Your task to perform on an android device: Open Android settings Image 0: 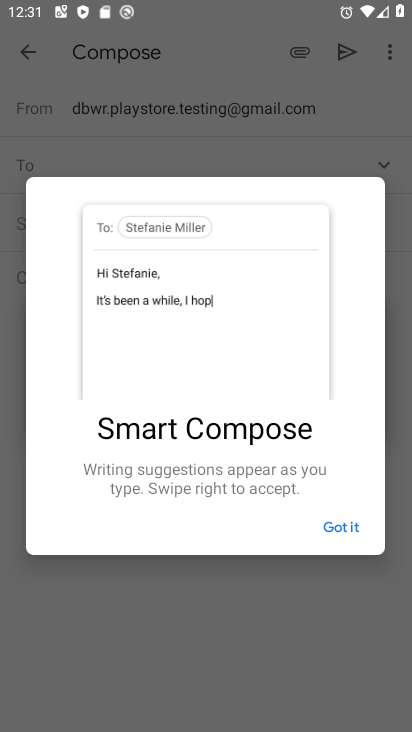
Step 0: press home button
Your task to perform on an android device: Open Android settings Image 1: 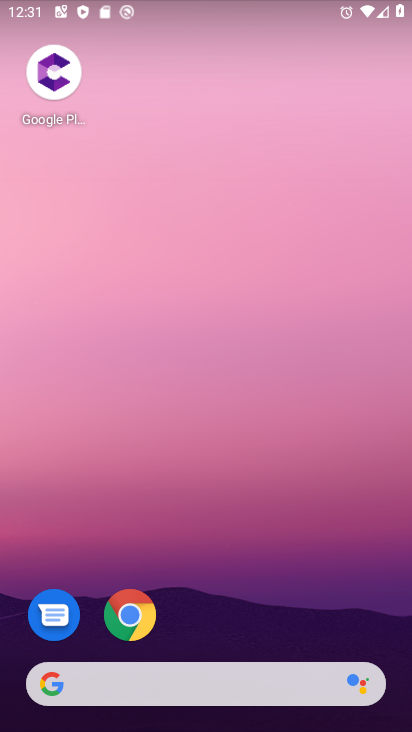
Step 1: drag from (268, 570) to (240, 53)
Your task to perform on an android device: Open Android settings Image 2: 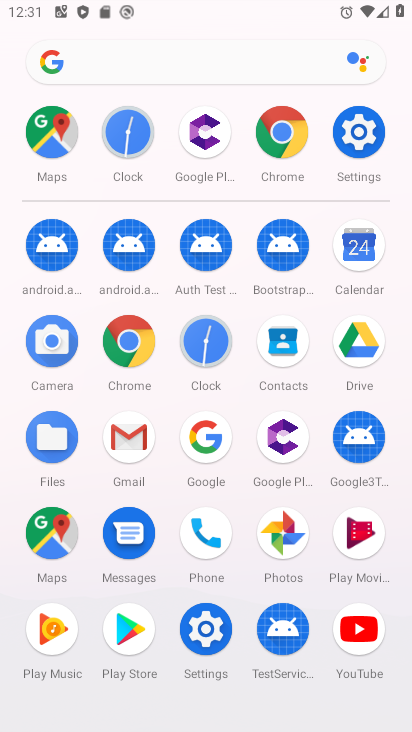
Step 2: click (203, 618)
Your task to perform on an android device: Open Android settings Image 3: 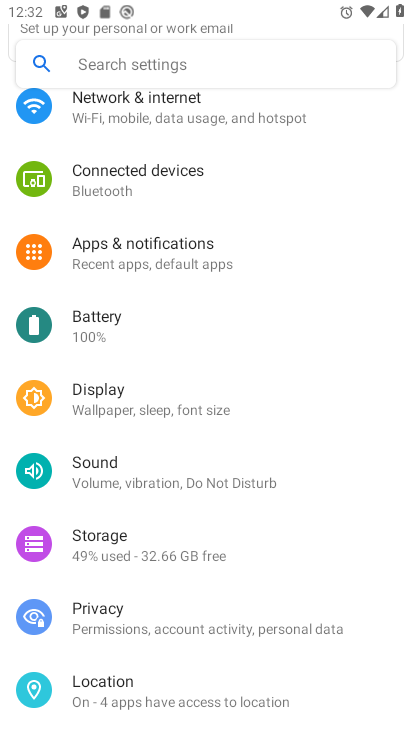
Step 3: task complete